Your task to perform on an android device: Search for pizza restaurants on Maps Image 0: 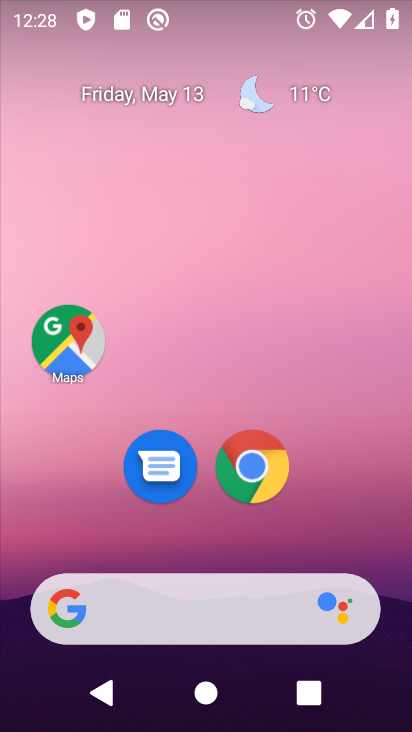
Step 0: click (106, 346)
Your task to perform on an android device: Search for pizza restaurants on Maps Image 1: 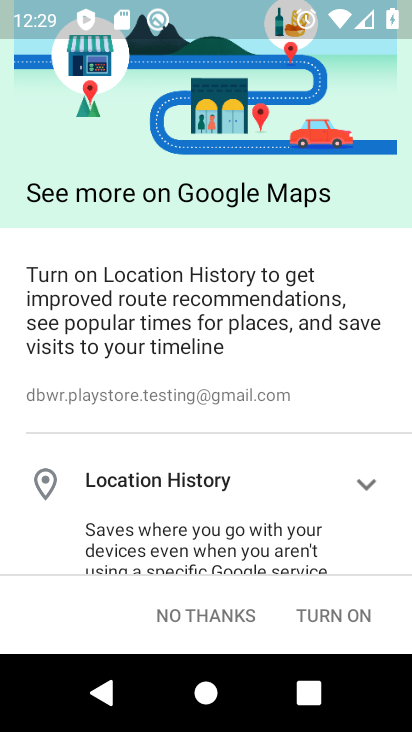
Step 1: click (323, 612)
Your task to perform on an android device: Search for pizza restaurants on Maps Image 2: 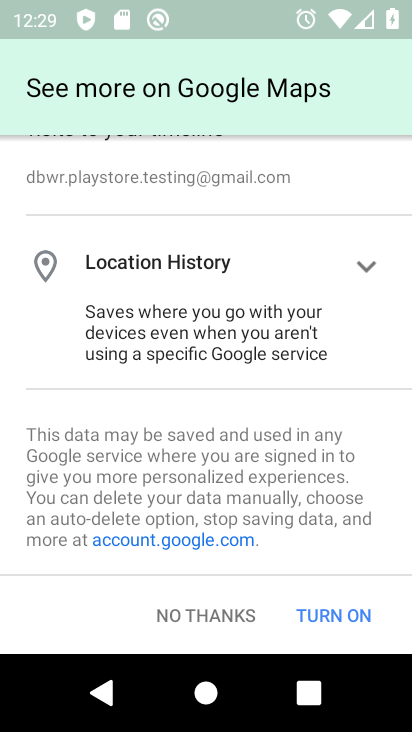
Step 2: click (336, 607)
Your task to perform on an android device: Search for pizza restaurants on Maps Image 3: 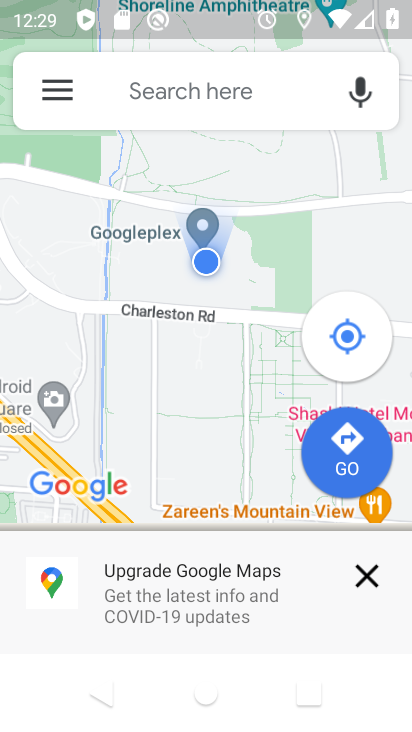
Step 3: click (183, 106)
Your task to perform on an android device: Search for pizza restaurants on Maps Image 4: 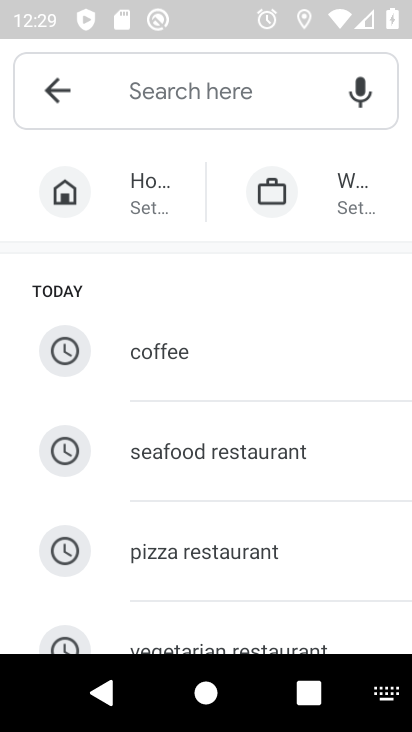
Step 4: click (295, 548)
Your task to perform on an android device: Search for pizza restaurants on Maps Image 5: 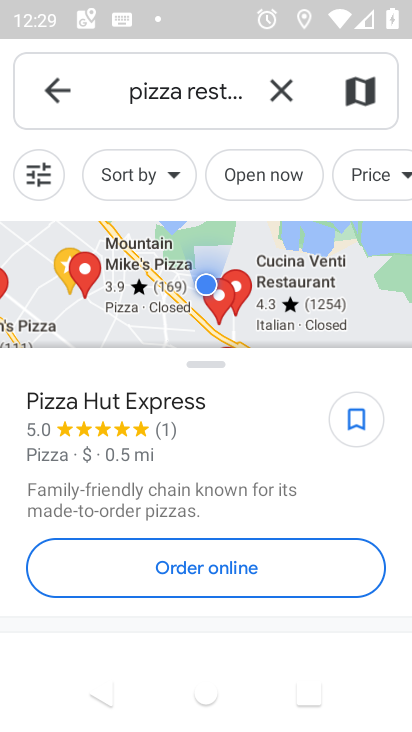
Step 5: task complete